Your task to perform on an android device: Show me popular games on the Play Store Image 0: 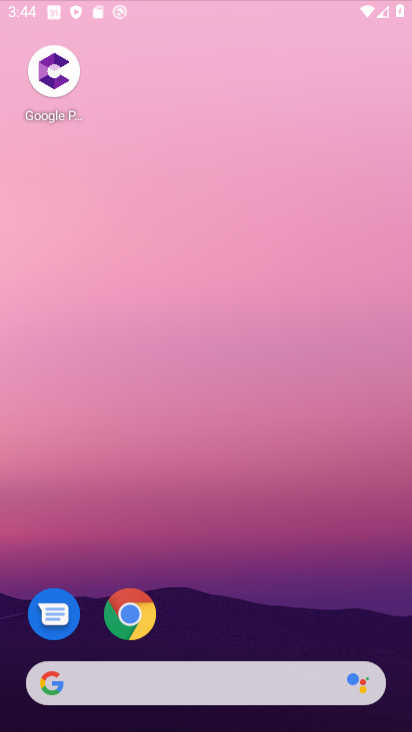
Step 0: click (218, 104)
Your task to perform on an android device: Show me popular games on the Play Store Image 1: 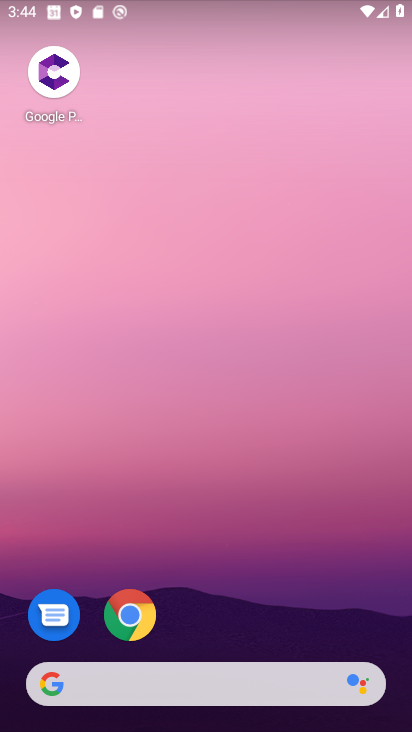
Step 1: press back button
Your task to perform on an android device: Show me popular games on the Play Store Image 2: 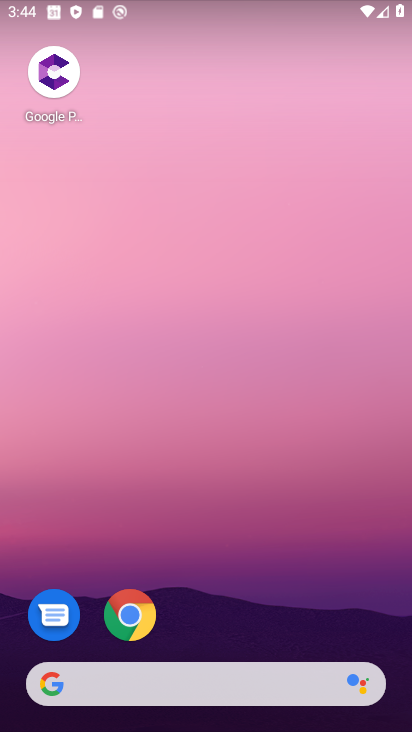
Step 2: drag from (310, 611) to (218, 203)
Your task to perform on an android device: Show me popular games on the Play Store Image 3: 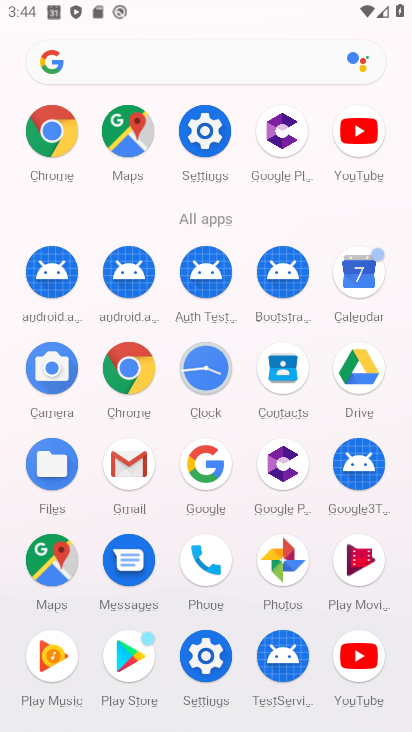
Step 3: click (354, 654)
Your task to perform on an android device: Show me popular games on the Play Store Image 4: 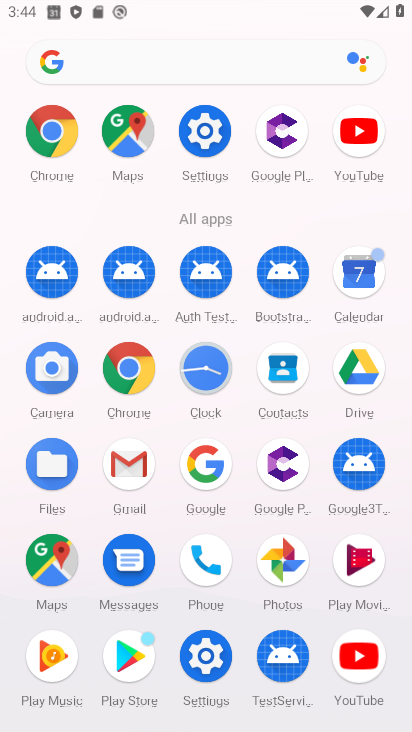
Step 4: click (354, 654)
Your task to perform on an android device: Show me popular games on the Play Store Image 5: 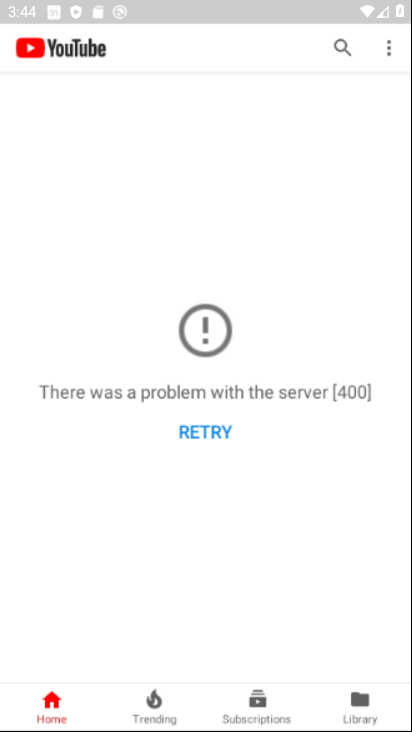
Step 5: click (355, 654)
Your task to perform on an android device: Show me popular games on the Play Store Image 6: 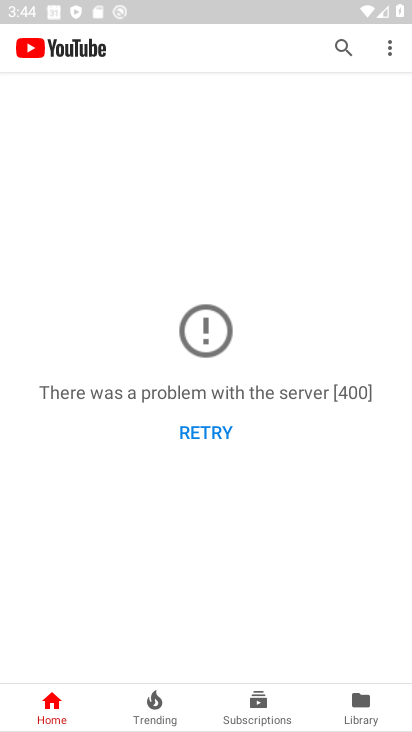
Step 6: press back button
Your task to perform on an android device: Show me popular games on the Play Store Image 7: 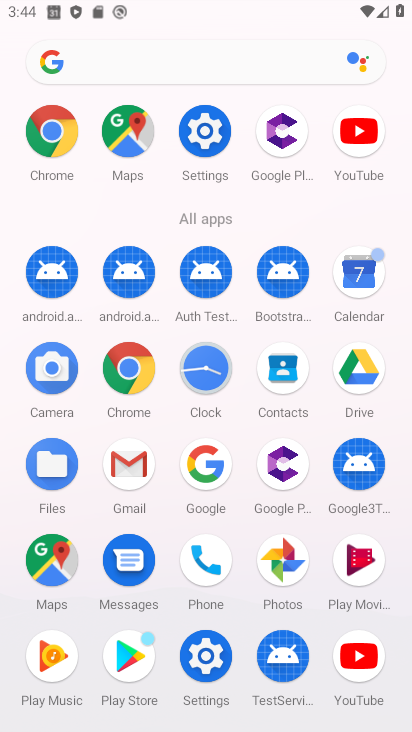
Step 7: click (121, 655)
Your task to perform on an android device: Show me popular games on the Play Store Image 8: 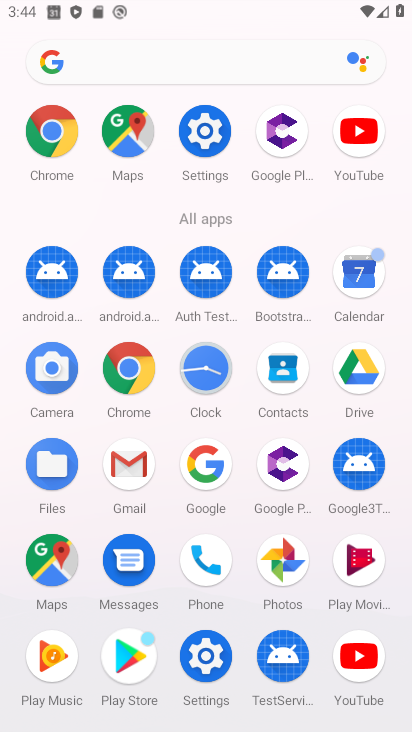
Step 8: click (121, 655)
Your task to perform on an android device: Show me popular games on the Play Store Image 9: 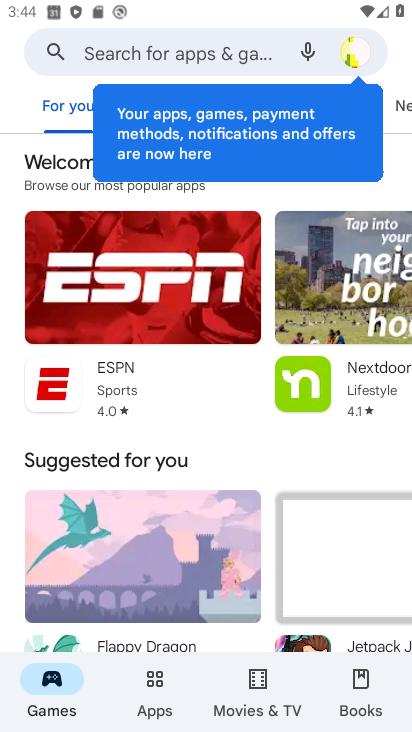
Step 9: click (130, 51)
Your task to perform on an android device: Show me popular games on the Play Store Image 10: 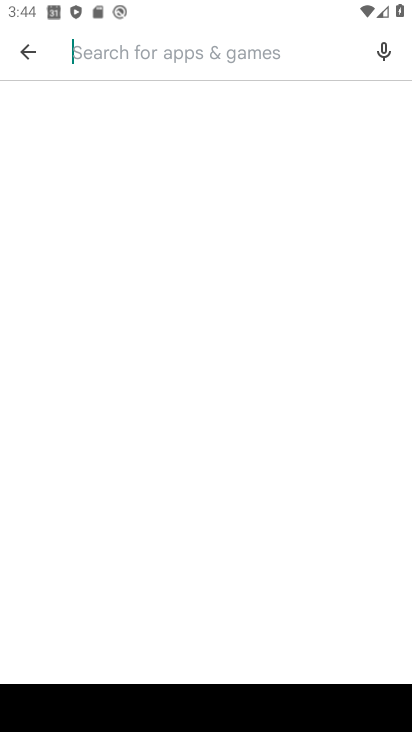
Step 10: type "popular games"
Your task to perform on an android device: Show me popular games on the Play Store Image 11: 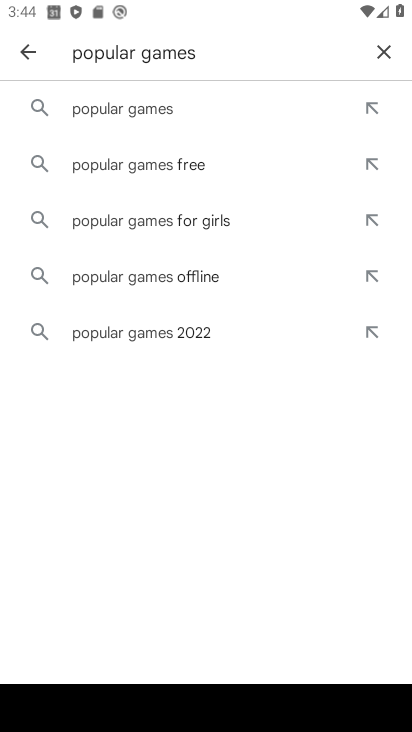
Step 11: click (149, 114)
Your task to perform on an android device: Show me popular games on the Play Store Image 12: 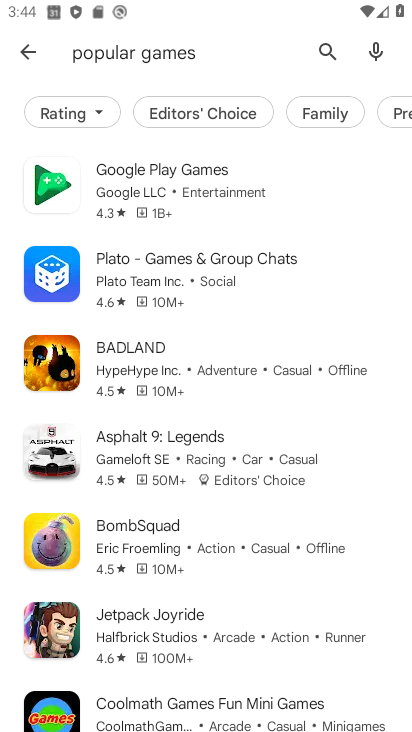
Step 12: task complete